Your task to perform on an android device: View the shopping cart on amazon.com. Add energizer triple a to the cart on amazon.com, then select checkout. Image 0: 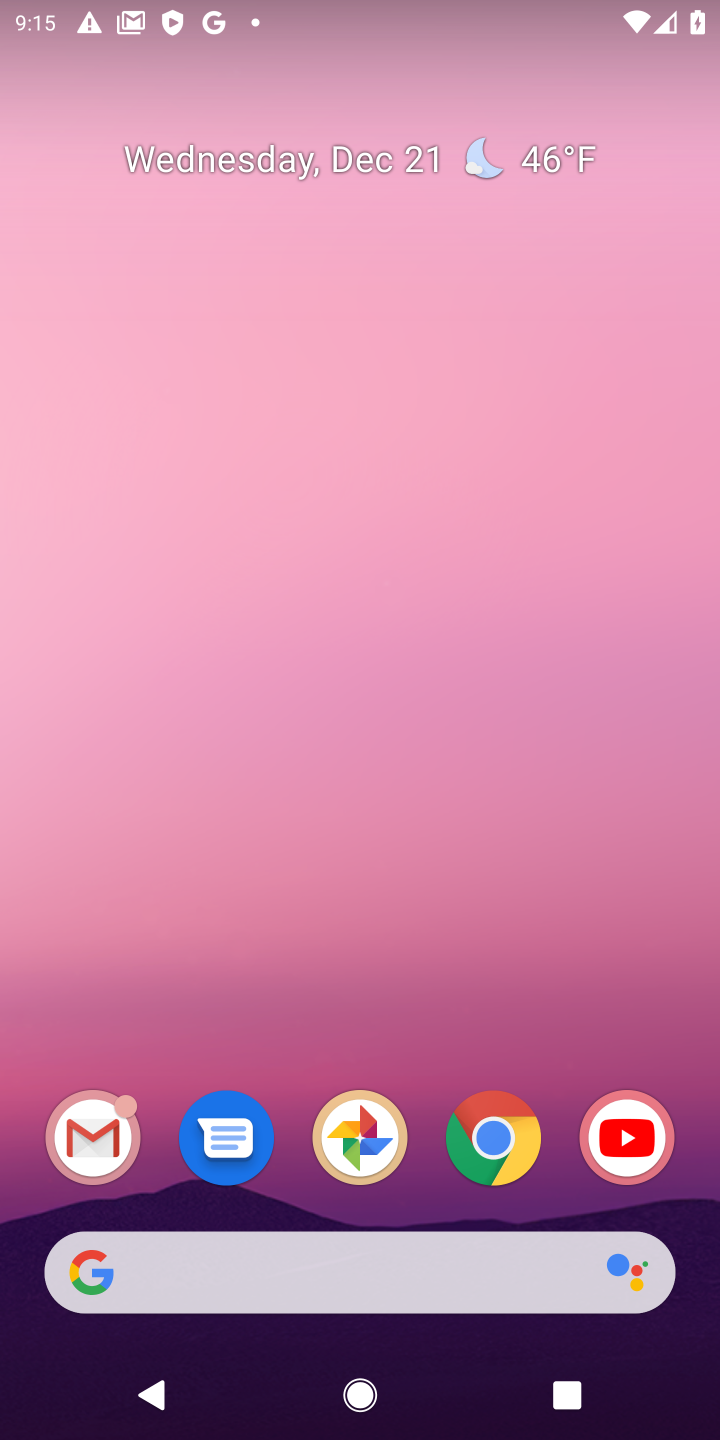
Step 0: click (483, 1139)
Your task to perform on an android device: View the shopping cart on amazon.com. Add energizer triple a to the cart on amazon.com, then select checkout. Image 1: 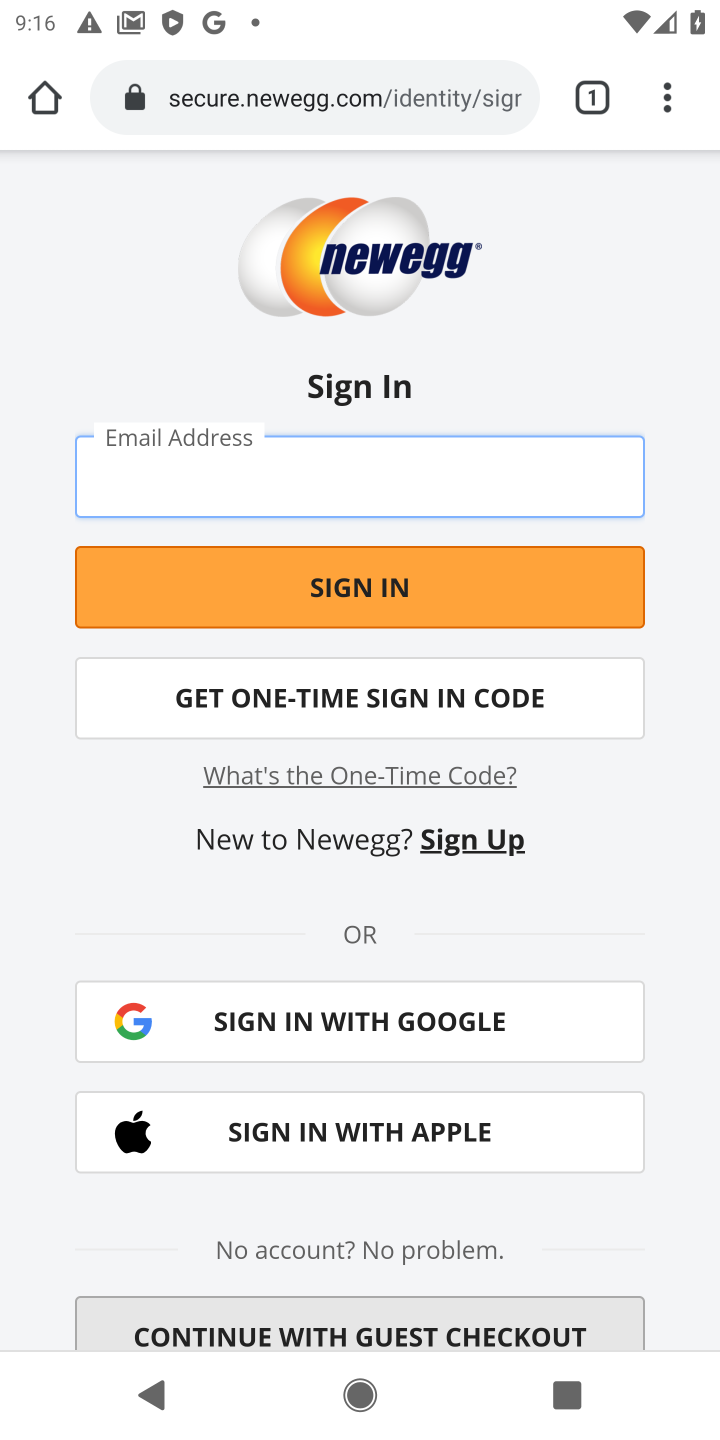
Step 1: click (299, 105)
Your task to perform on an android device: View the shopping cart on amazon.com. Add energizer triple a to the cart on amazon.com, then select checkout. Image 2: 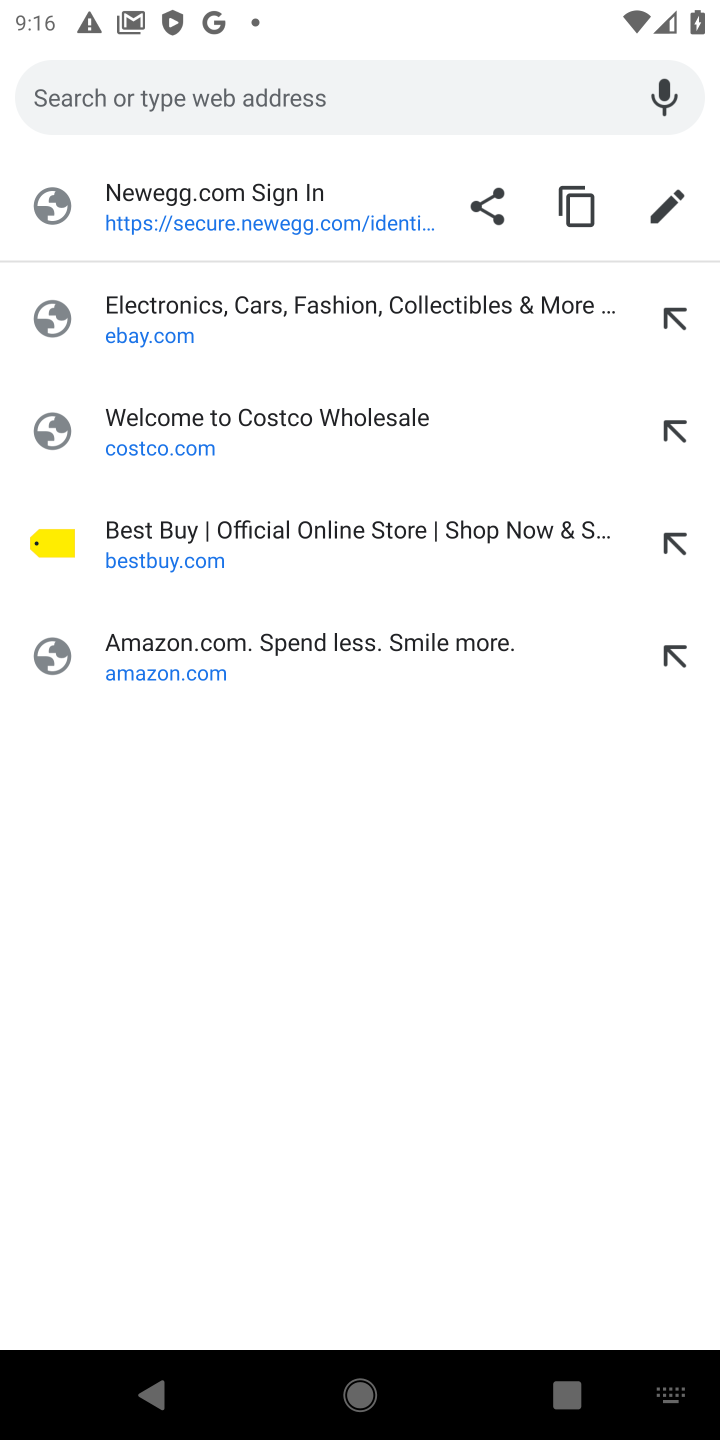
Step 2: click (153, 665)
Your task to perform on an android device: View the shopping cart on amazon.com. Add energizer triple a to the cart on amazon.com, then select checkout. Image 3: 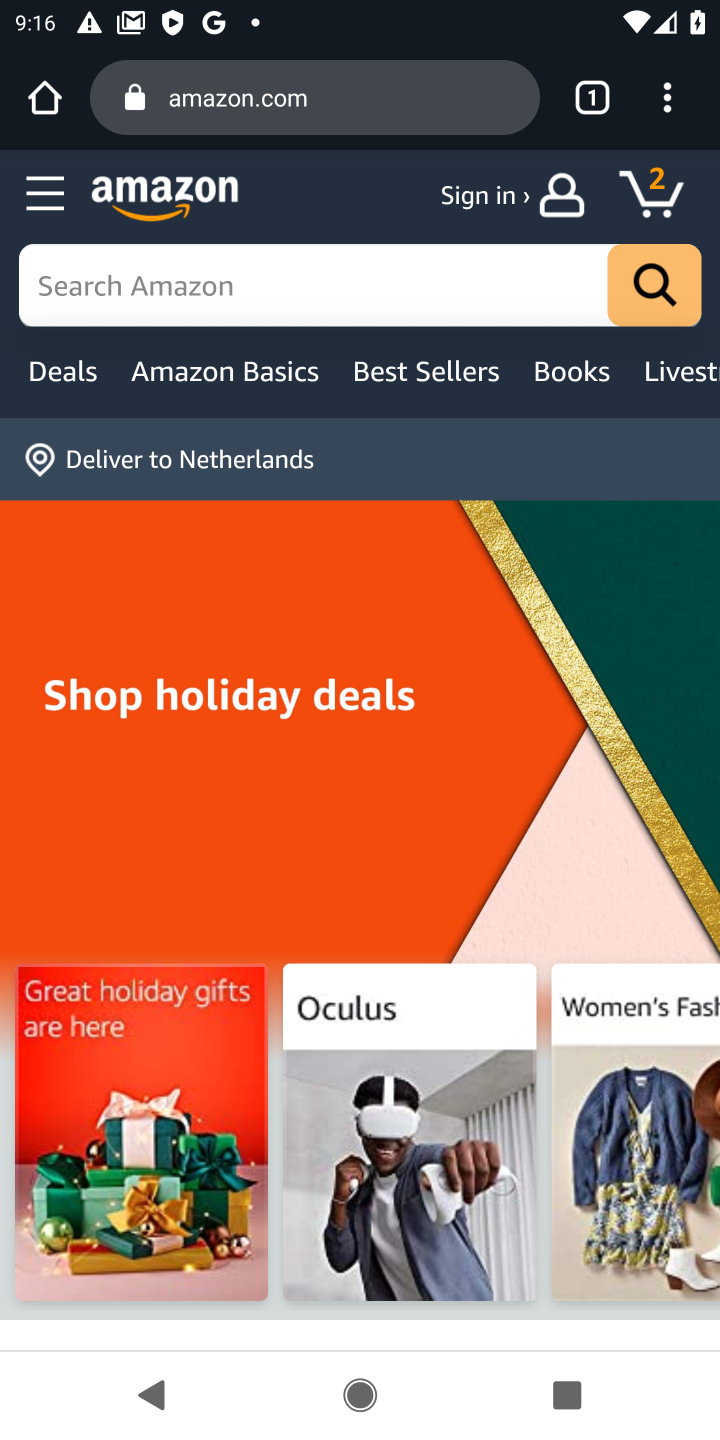
Step 3: click (659, 197)
Your task to perform on an android device: View the shopping cart on amazon.com. Add energizer triple a to the cart on amazon.com, then select checkout. Image 4: 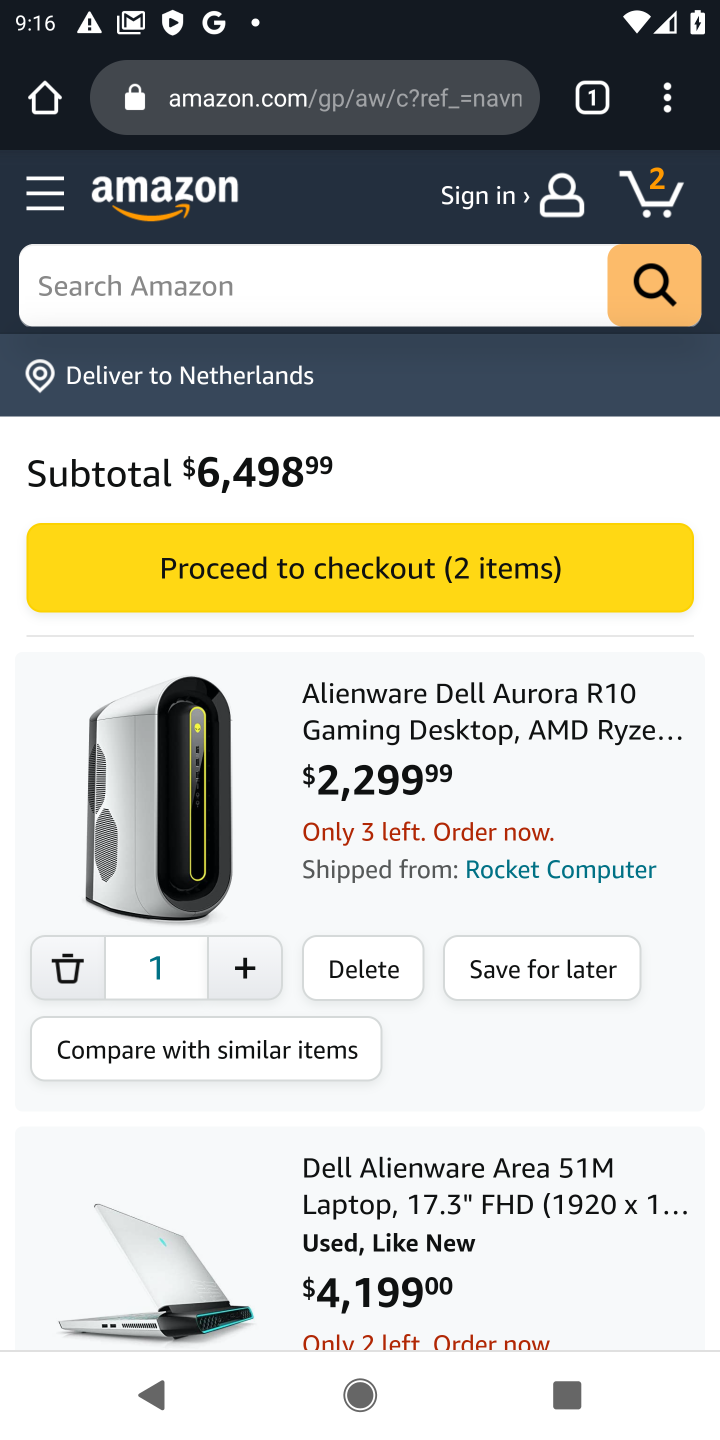
Step 4: click (143, 279)
Your task to perform on an android device: View the shopping cart on amazon.com. Add energizer triple a to the cart on amazon.com, then select checkout. Image 5: 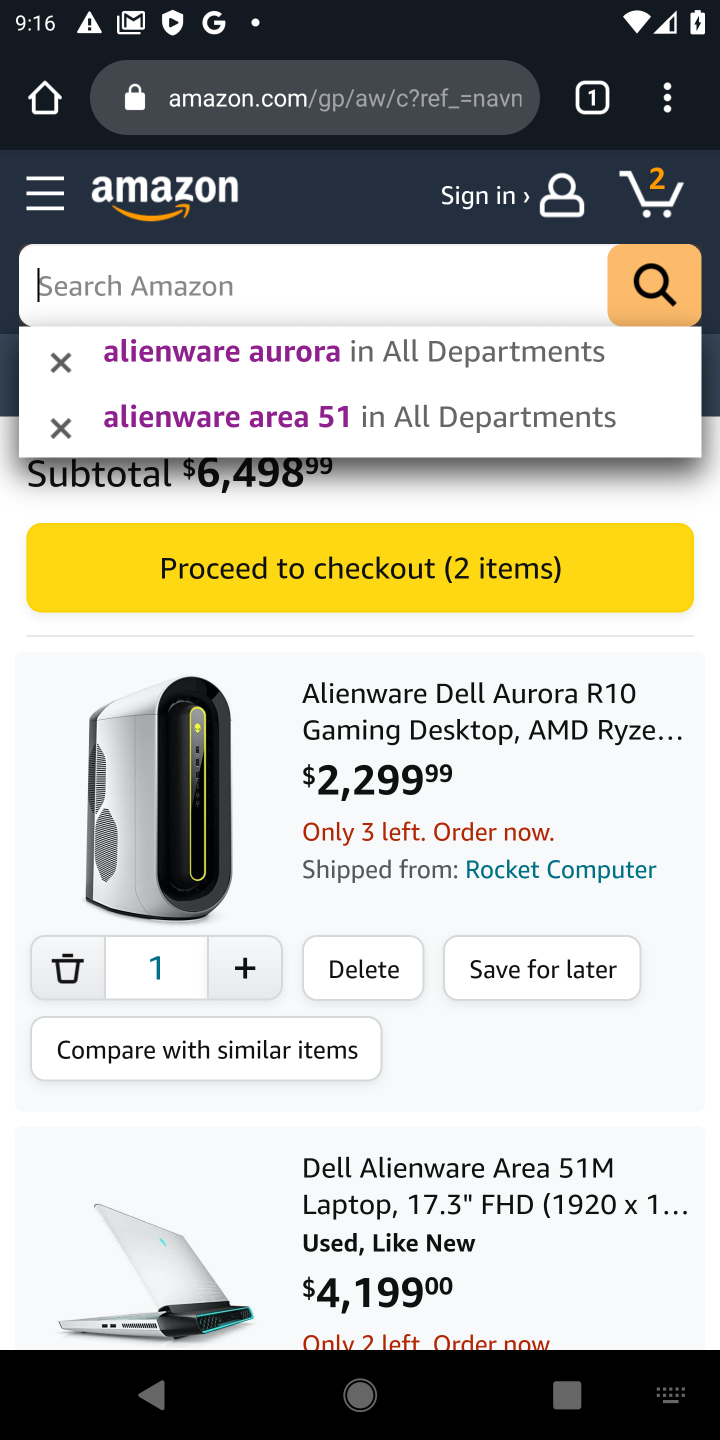
Step 5: type "energizer triple a"
Your task to perform on an android device: View the shopping cart on amazon.com. Add energizer triple a to the cart on amazon.com, then select checkout. Image 6: 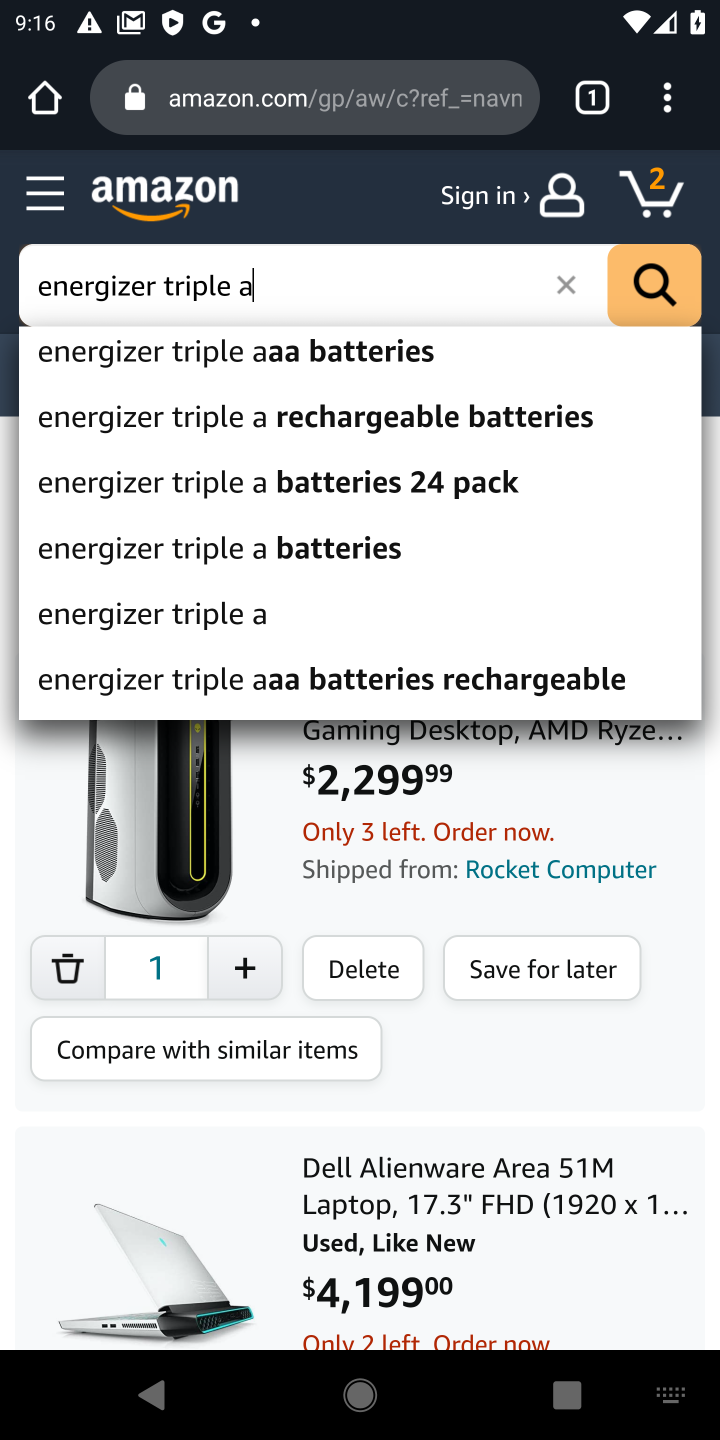
Step 6: click (154, 351)
Your task to perform on an android device: View the shopping cart on amazon.com. Add energizer triple a to the cart on amazon.com, then select checkout. Image 7: 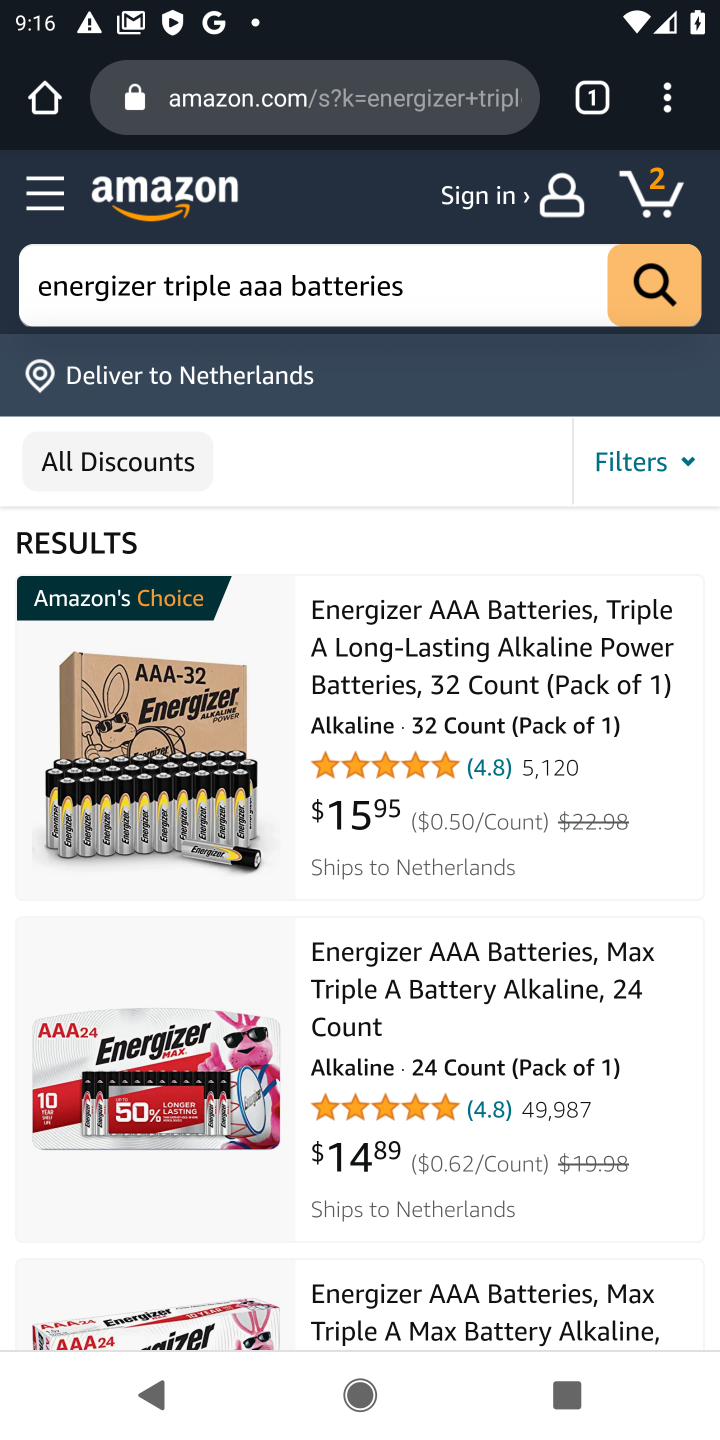
Step 7: click (402, 689)
Your task to perform on an android device: View the shopping cart on amazon.com. Add energizer triple a to the cart on amazon.com, then select checkout. Image 8: 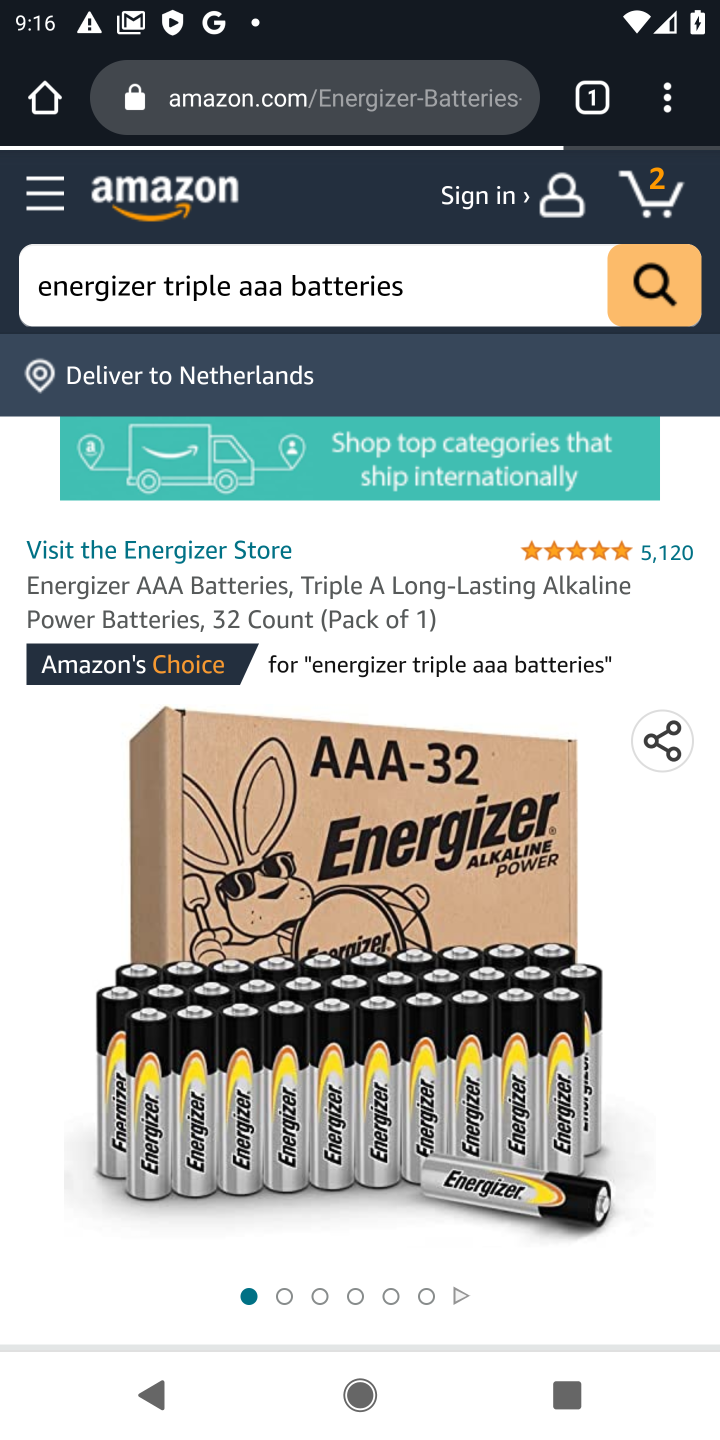
Step 8: drag from (318, 1014) to (322, 472)
Your task to perform on an android device: View the shopping cart on amazon.com. Add energizer triple a to the cart on amazon.com, then select checkout. Image 9: 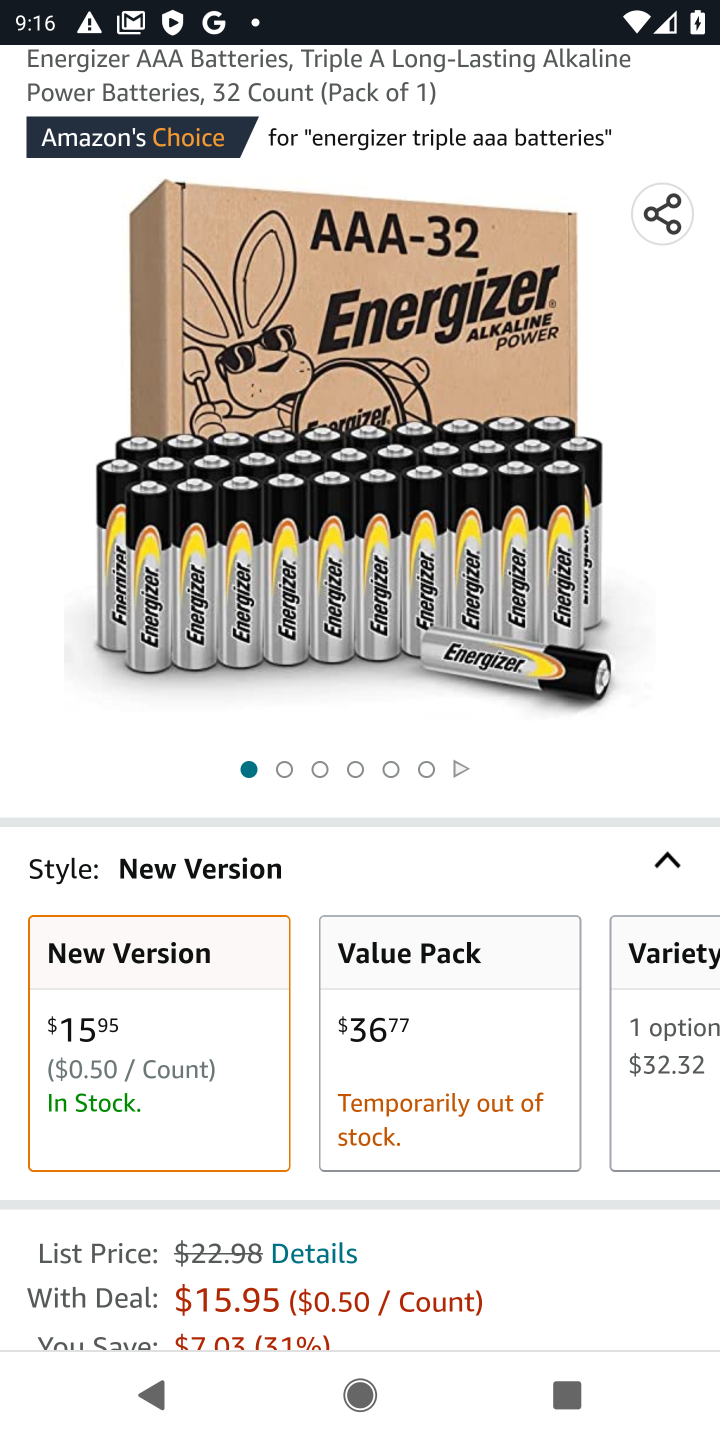
Step 9: drag from (370, 905) to (360, 730)
Your task to perform on an android device: View the shopping cart on amazon.com. Add energizer triple a to the cart on amazon.com, then select checkout. Image 10: 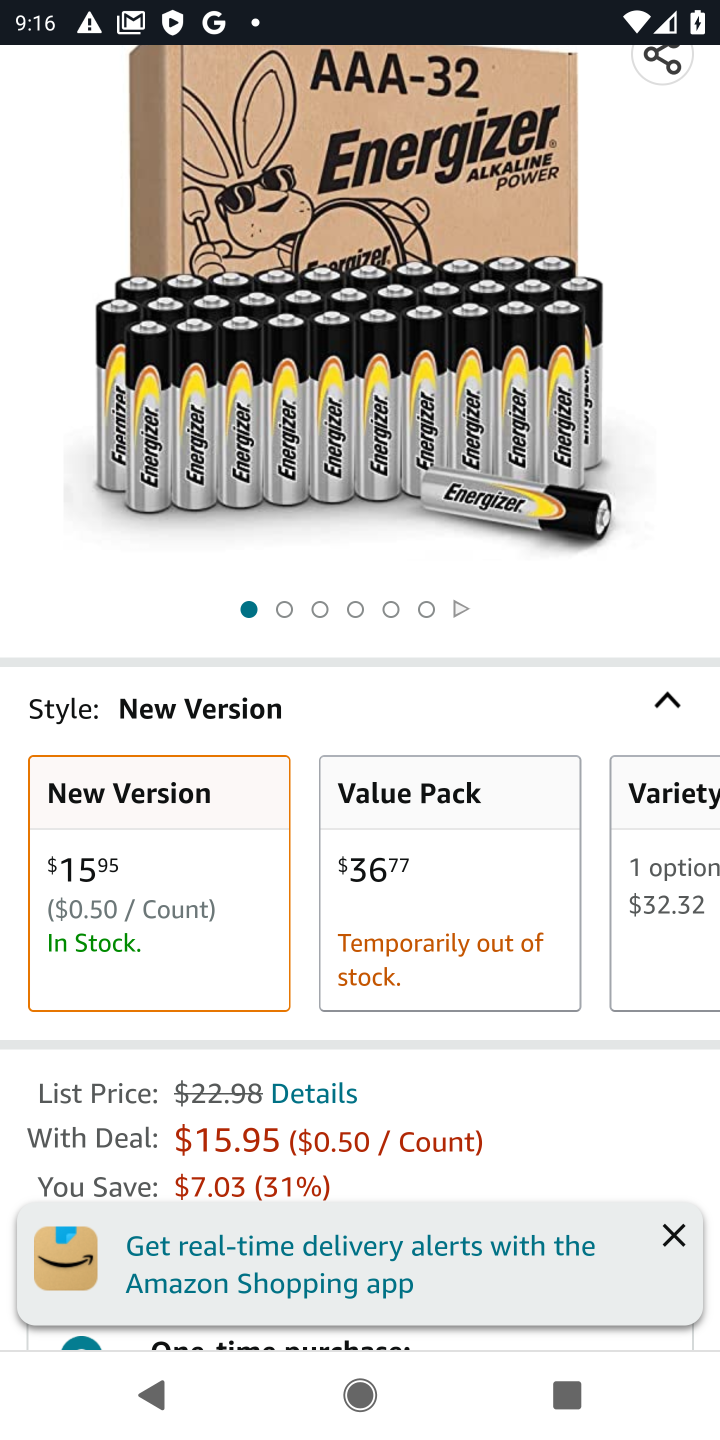
Step 10: drag from (321, 1073) to (325, 747)
Your task to perform on an android device: View the shopping cart on amazon.com. Add energizer triple a to the cart on amazon.com, then select checkout. Image 11: 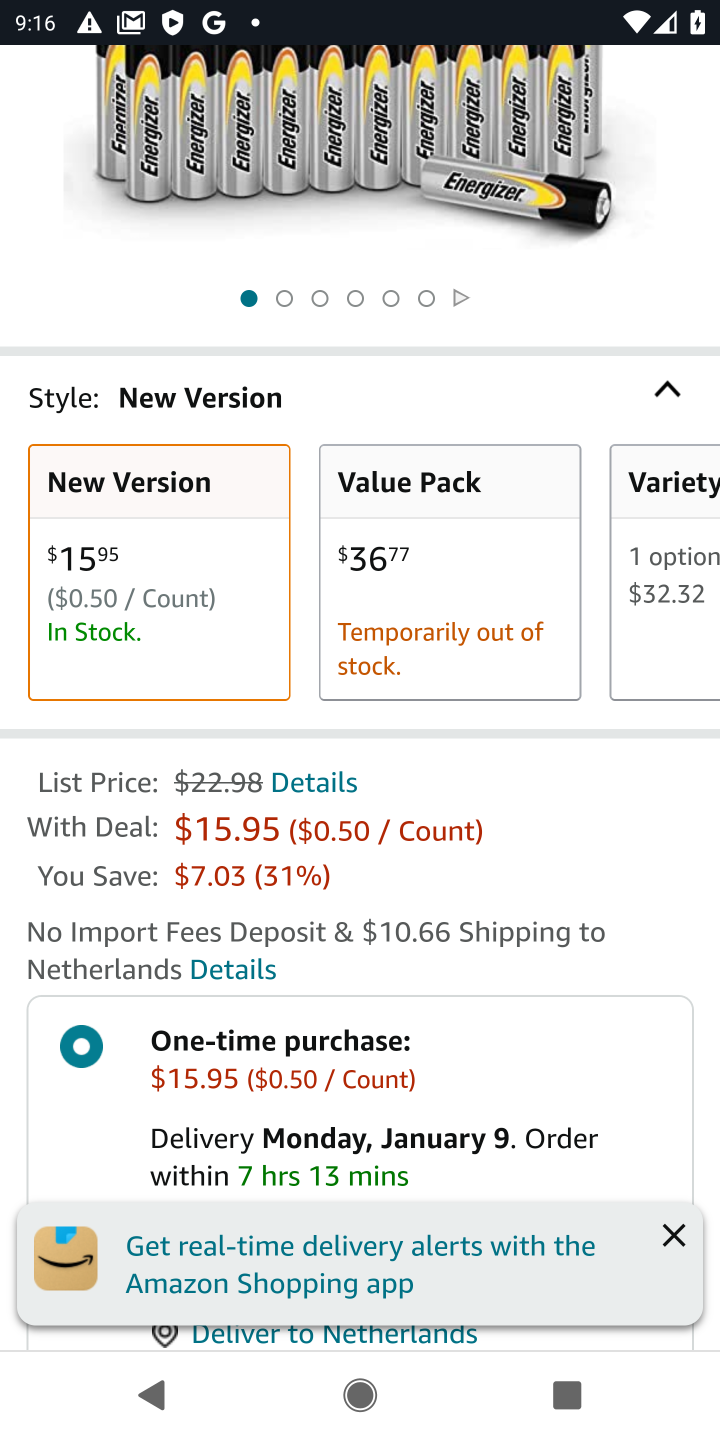
Step 11: drag from (351, 1031) to (338, 715)
Your task to perform on an android device: View the shopping cart on amazon.com. Add energizer triple a to the cart on amazon.com, then select checkout. Image 12: 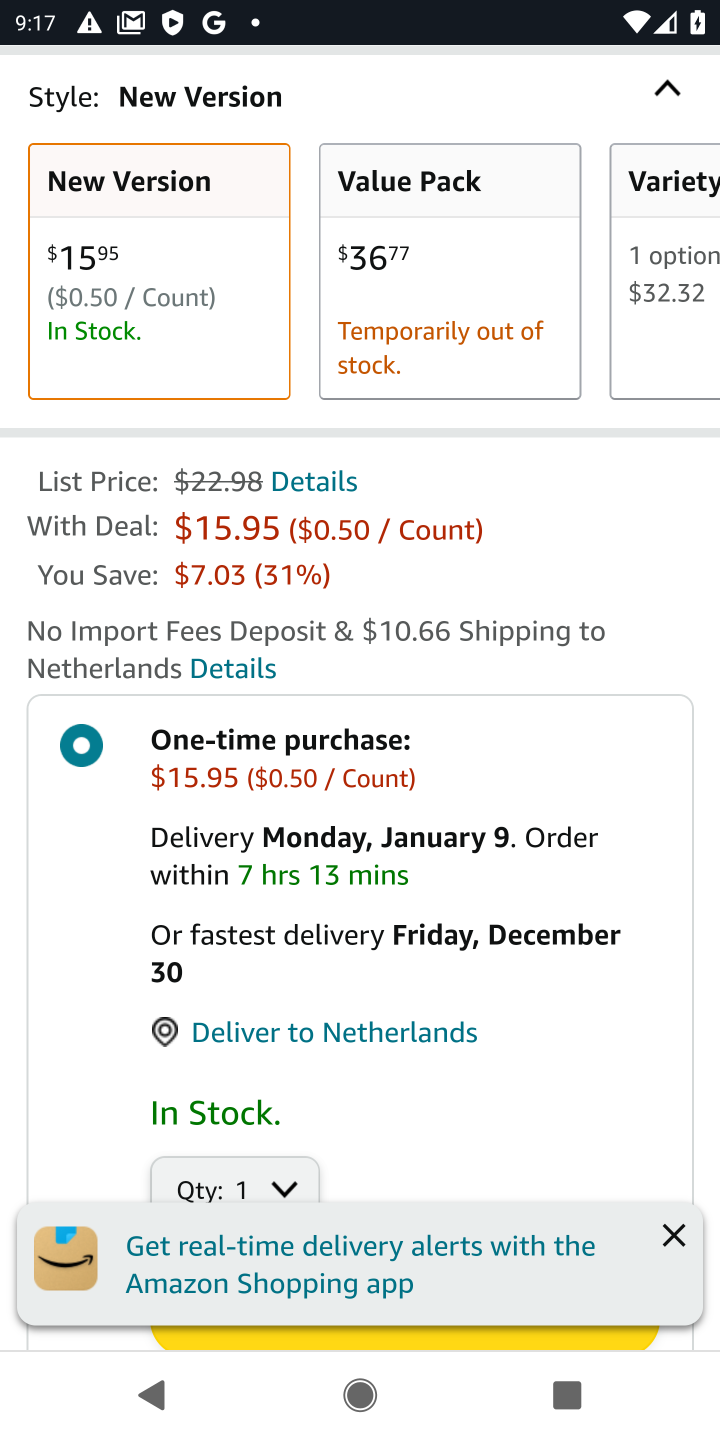
Step 12: drag from (366, 1073) to (368, 867)
Your task to perform on an android device: View the shopping cart on amazon.com. Add energizer triple a to the cart on amazon.com, then select checkout. Image 13: 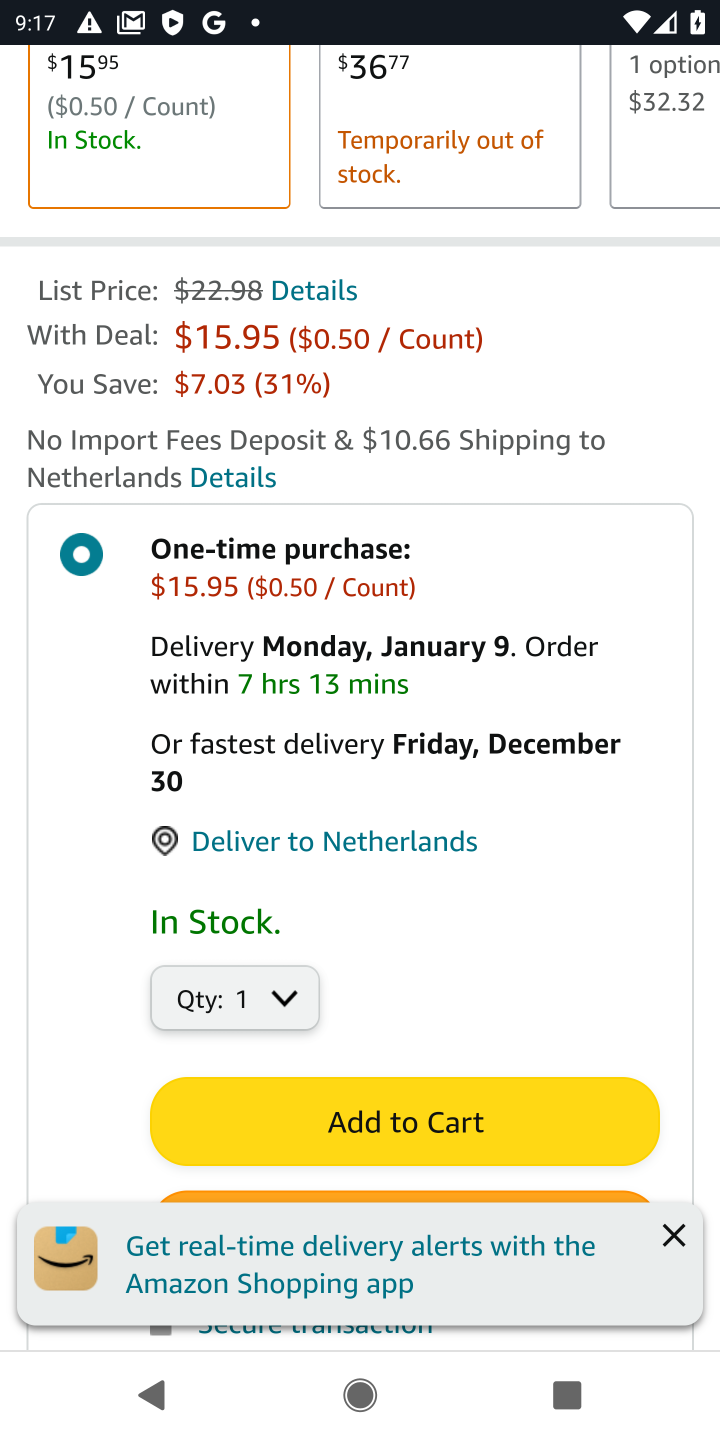
Step 13: click (406, 1111)
Your task to perform on an android device: View the shopping cart on amazon.com. Add energizer triple a to the cart on amazon.com, then select checkout. Image 14: 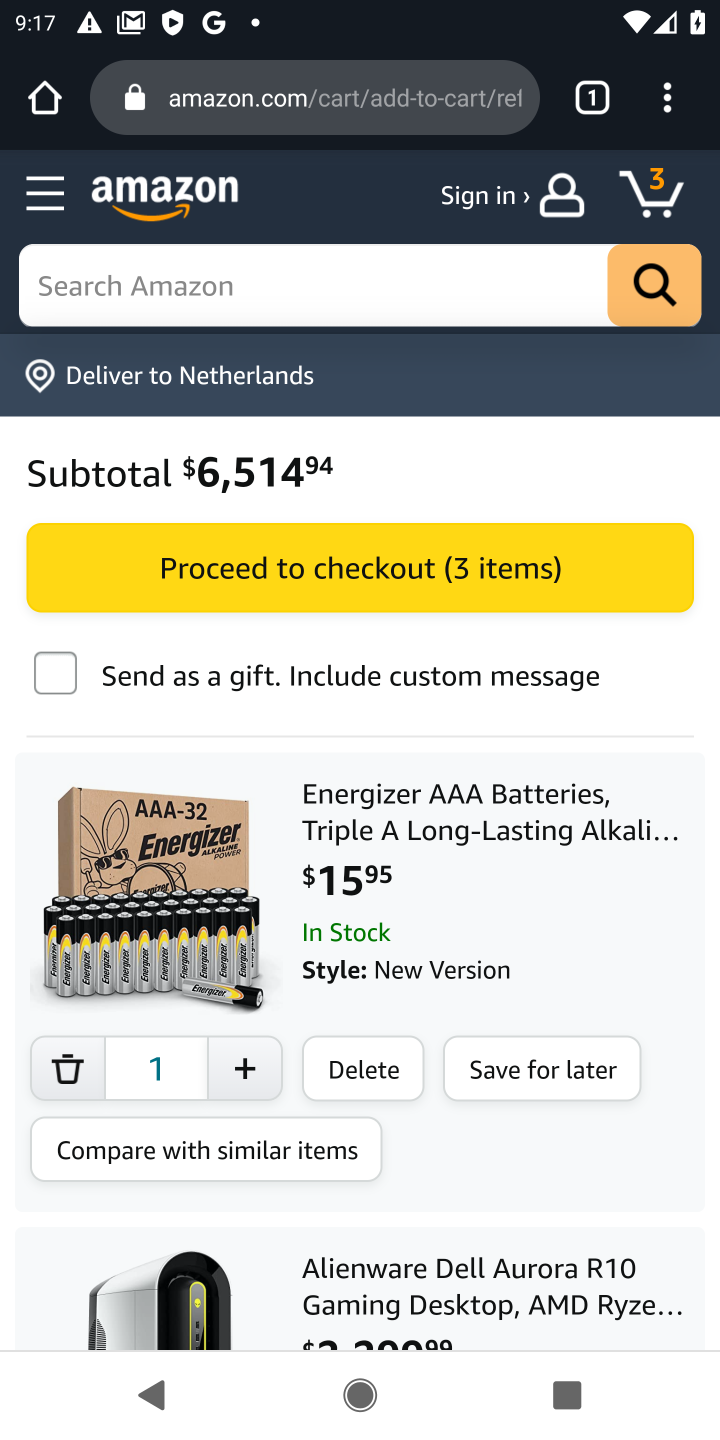
Step 14: click (323, 577)
Your task to perform on an android device: View the shopping cart on amazon.com. Add energizer triple a to the cart on amazon.com, then select checkout. Image 15: 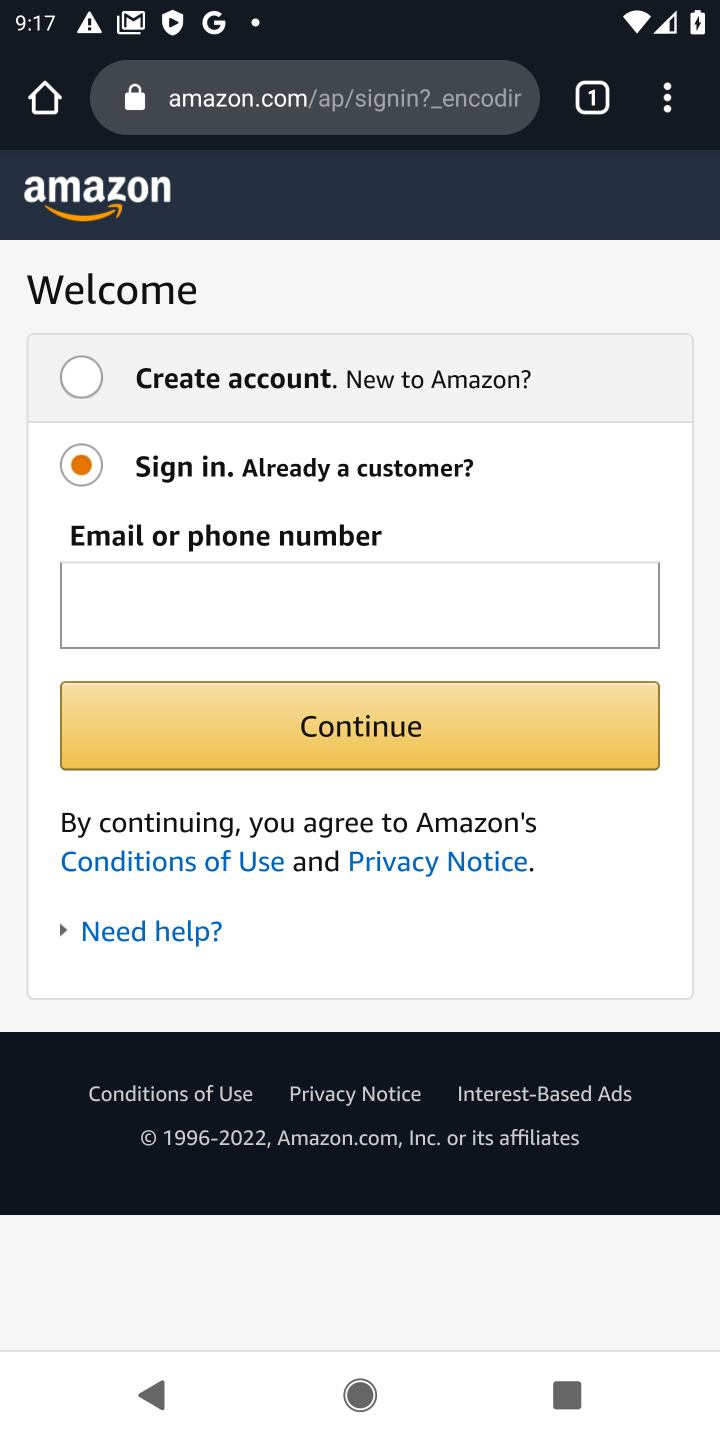
Step 15: task complete